Your task to perform on an android device: turn off improve location accuracy Image 0: 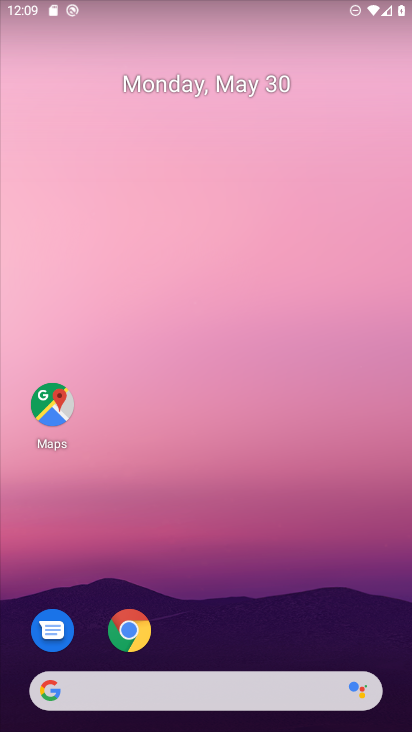
Step 0: click (169, 26)
Your task to perform on an android device: turn off improve location accuracy Image 1: 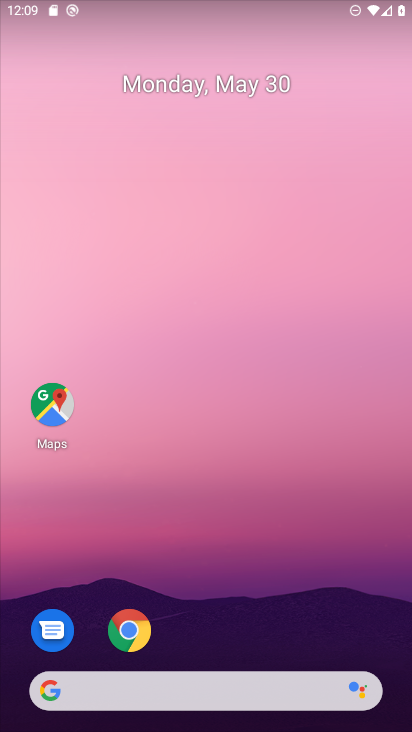
Step 1: drag from (262, 711) to (125, 33)
Your task to perform on an android device: turn off improve location accuracy Image 2: 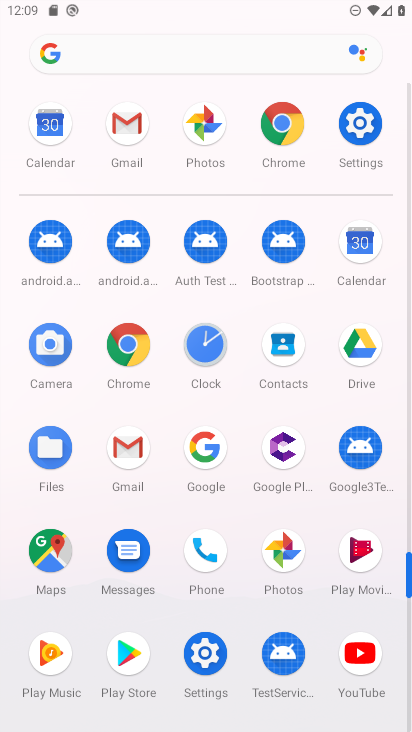
Step 2: click (365, 121)
Your task to perform on an android device: turn off improve location accuracy Image 3: 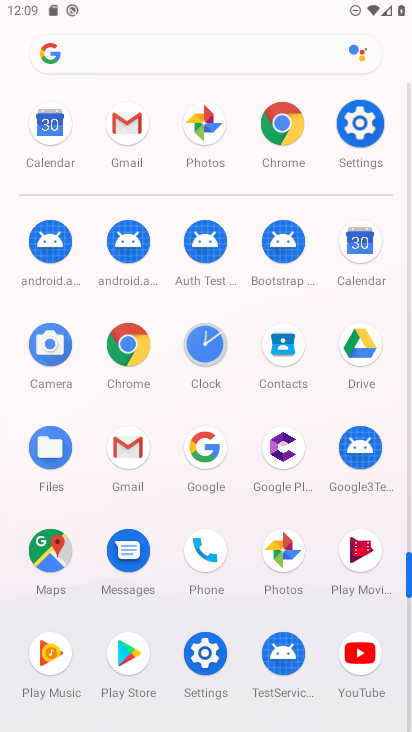
Step 3: click (362, 121)
Your task to perform on an android device: turn off improve location accuracy Image 4: 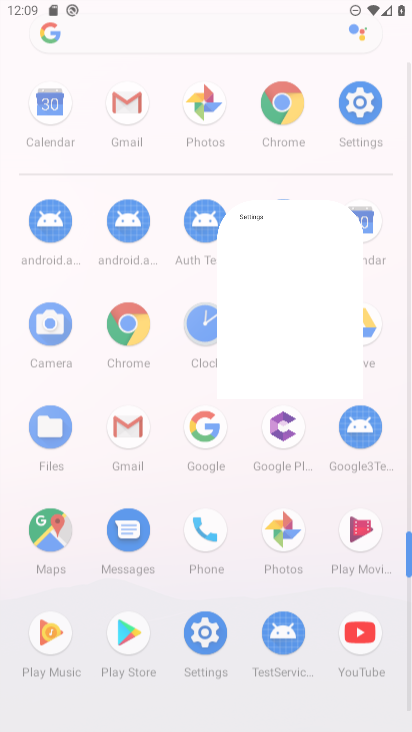
Step 4: click (362, 121)
Your task to perform on an android device: turn off improve location accuracy Image 5: 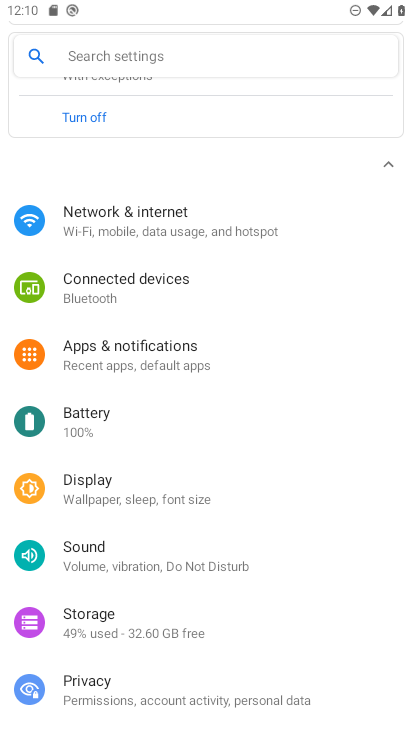
Step 5: drag from (132, 557) to (111, 156)
Your task to perform on an android device: turn off improve location accuracy Image 6: 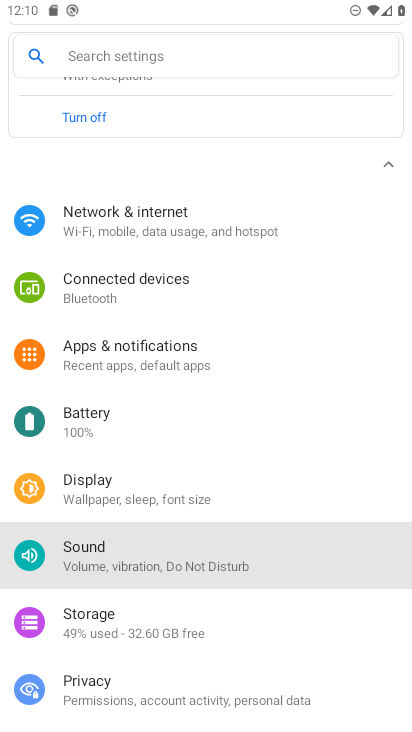
Step 6: drag from (125, 583) to (115, 160)
Your task to perform on an android device: turn off improve location accuracy Image 7: 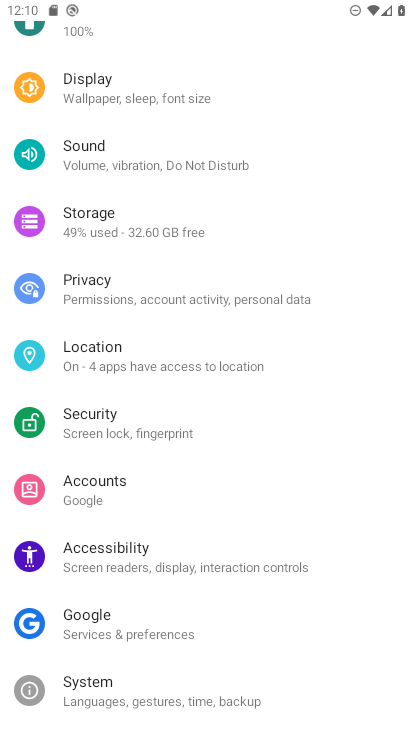
Step 7: click (91, 348)
Your task to perform on an android device: turn off improve location accuracy Image 8: 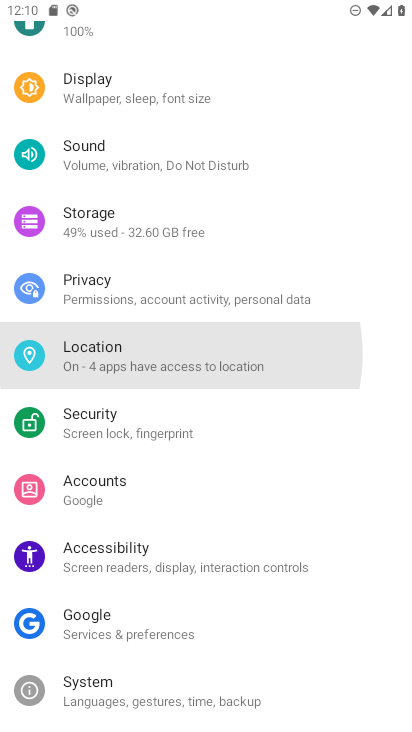
Step 8: click (91, 348)
Your task to perform on an android device: turn off improve location accuracy Image 9: 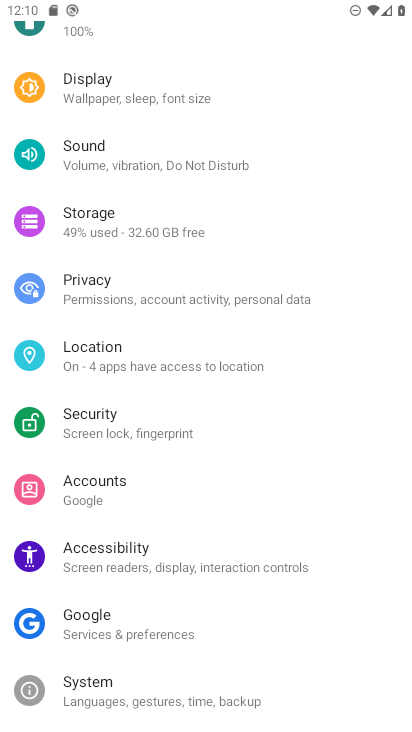
Step 9: click (103, 350)
Your task to perform on an android device: turn off improve location accuracy Image 10: 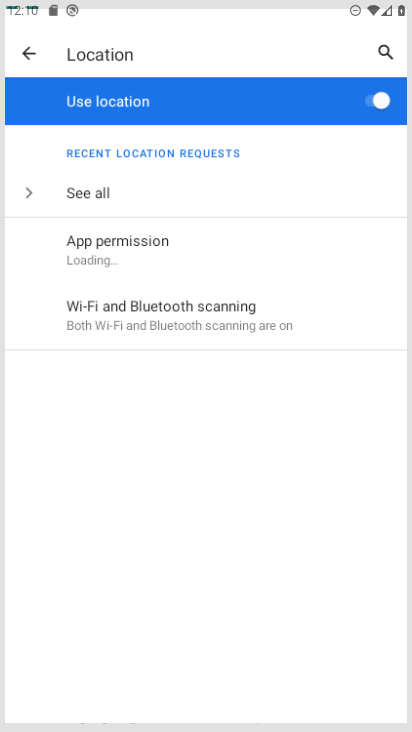
Step 10: click (114, 328)
Your task to perform on an android device: turn off improve location accuracy Image 11: 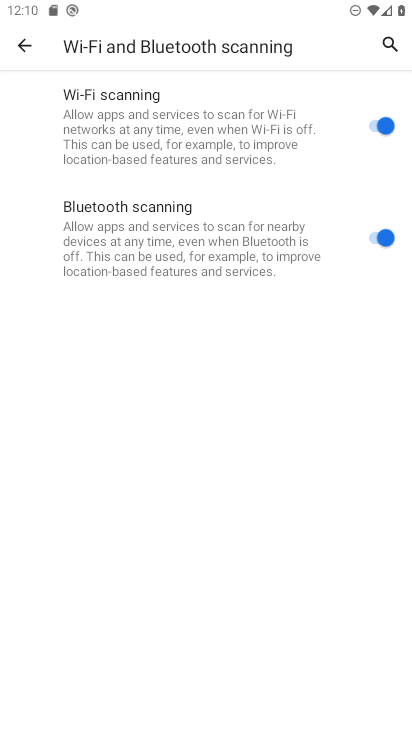
Step 11: click (23, 45)
Your task to perform on an android device: turn off improve location accuracy Image 12: 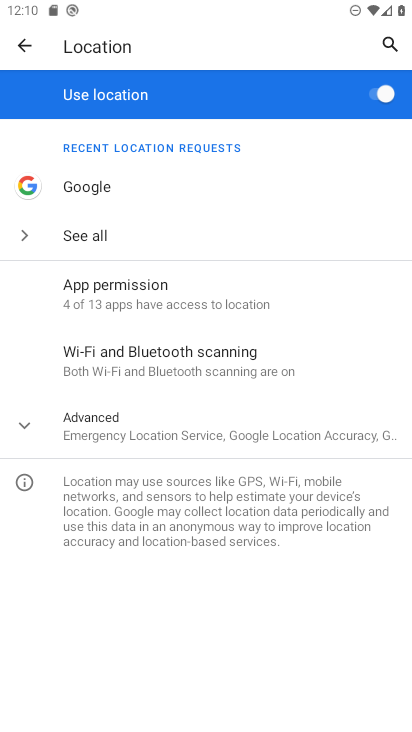
Step 12: click (16, 42)
Your task to perform on an android device: turn off improve location accuracy Image 13: 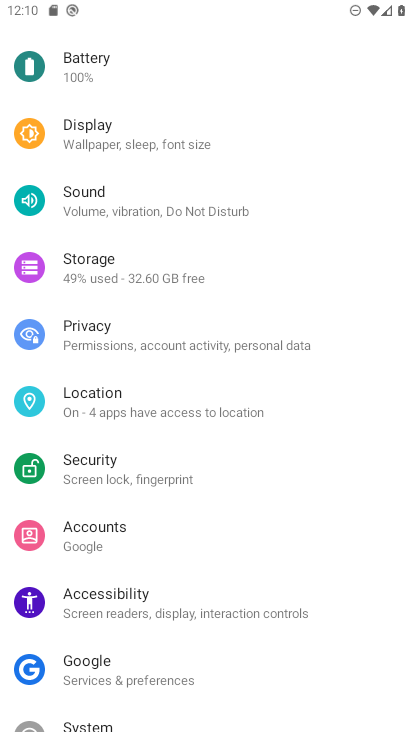
Step 13: click (124, 408)
Your task to perform on an android device: turn off improve location accuracy Image 14: 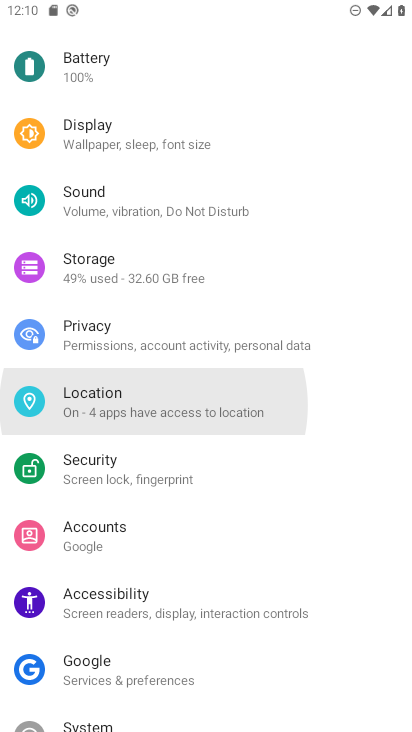
Step 14: click (123, 407)
Your task to perform on an android device: turn off improve location accuracy Image 15: 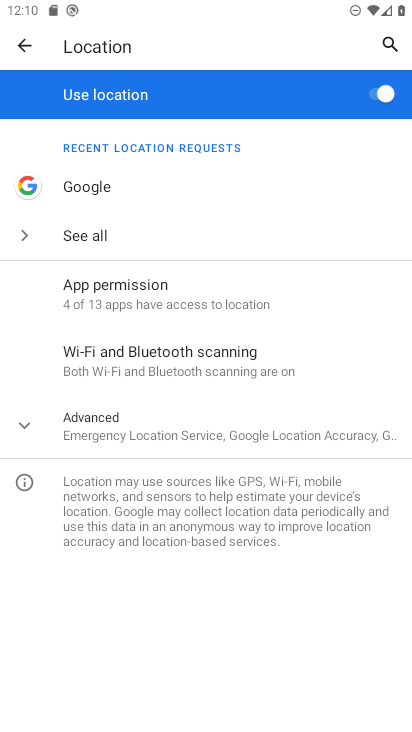
Step 15: click (124, 429)
Your task to perform on an android device: turn off improve location accuracy Image 16: 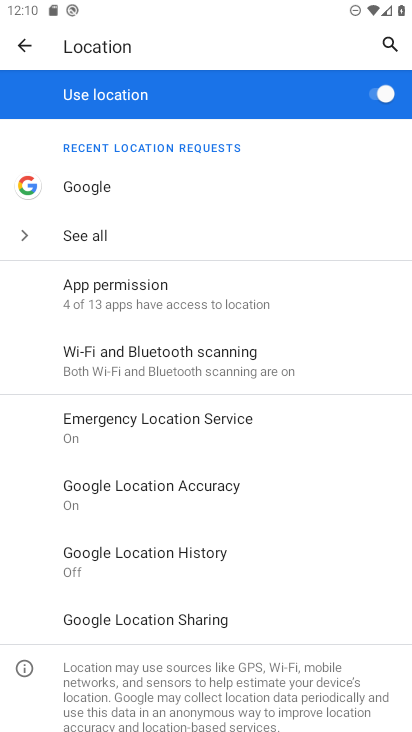
Step 16: click (131, 489)
Your task to perform on an android device: turn off improve location accuracy Image 17: 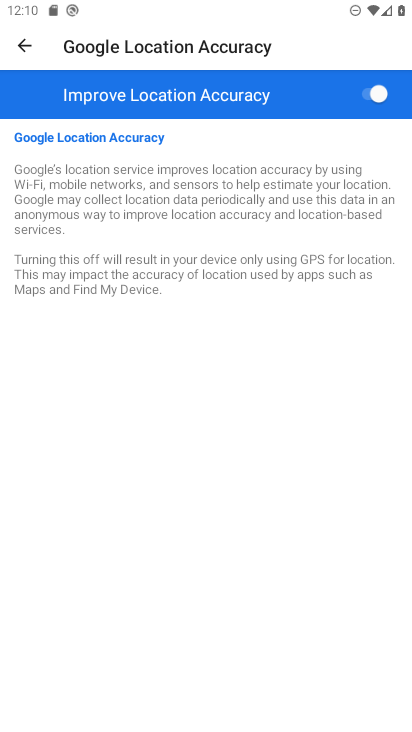
Step 17: click (383, 87)
Your task to perform on an android device: turn off improve location accuracy Image 18: 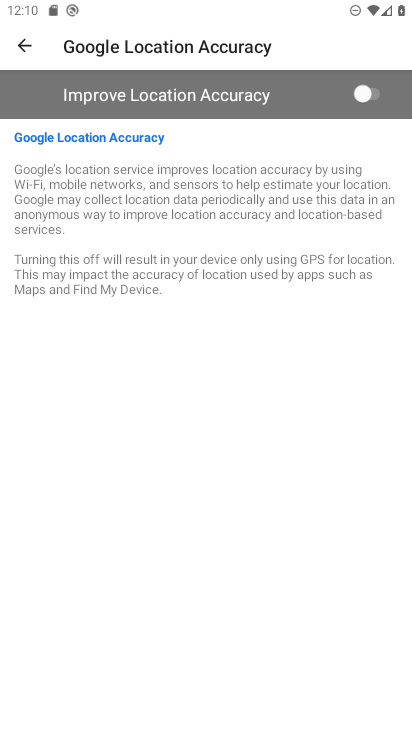
Step 18: task complete